Your task to perform on an android device: Show me the alarms in the clock app Image 0: 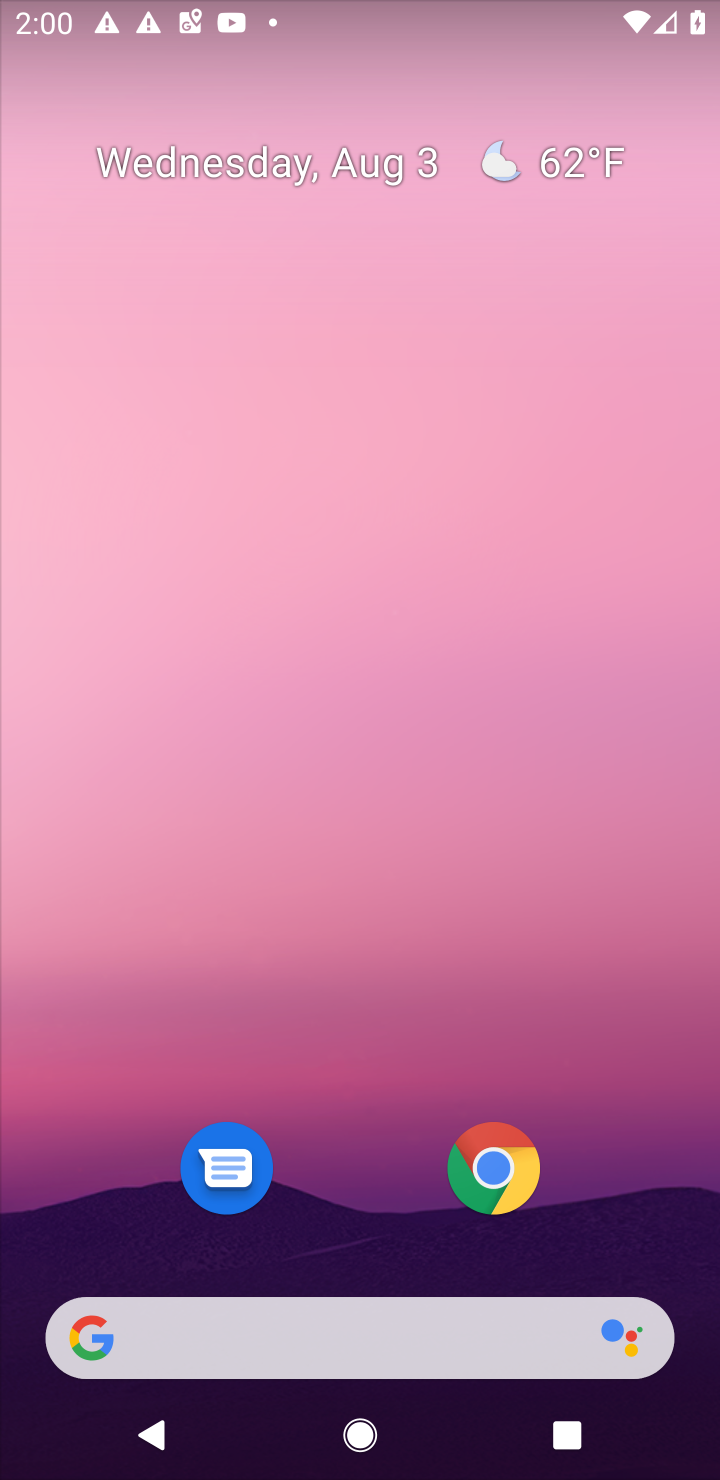
Step 0: drag from (651, 1236) to (591, 258)
Your task to perform on an android device: Show me the alarms in the clock app Image 1: 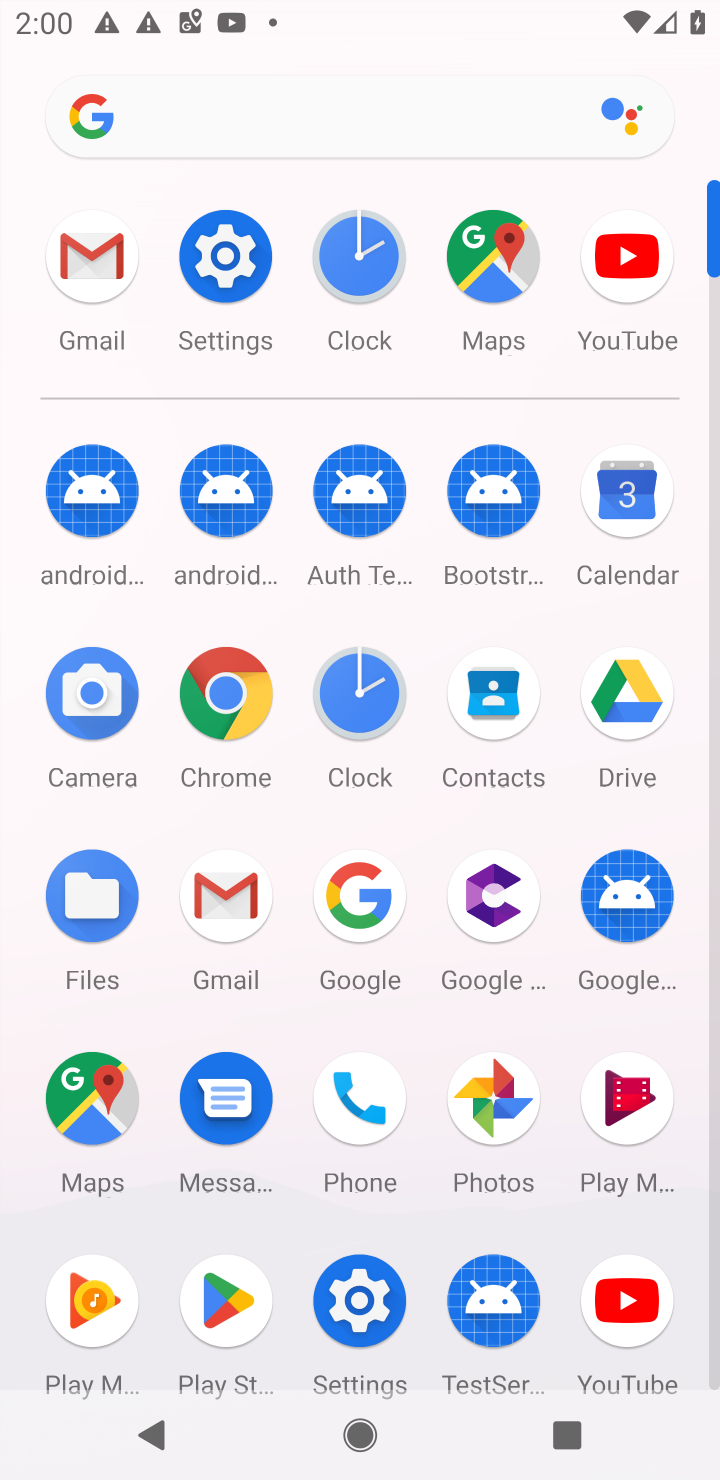
Step 1: click (350, 698)
Your task to perform on an android device: Show me the alarms in the clock app Image 2: 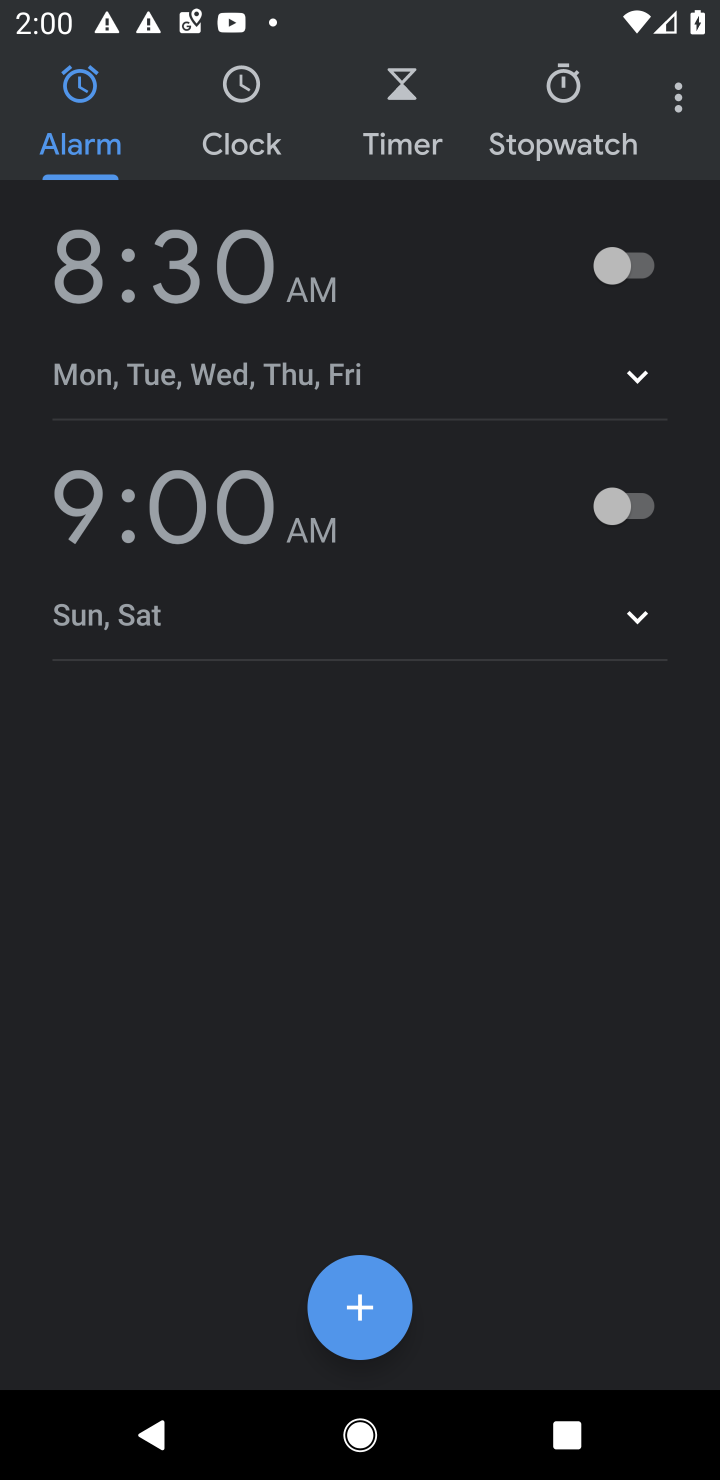
Step 2: task complete